Your task to perform on an android device: turn on the 12-hour format for clock Image 0: 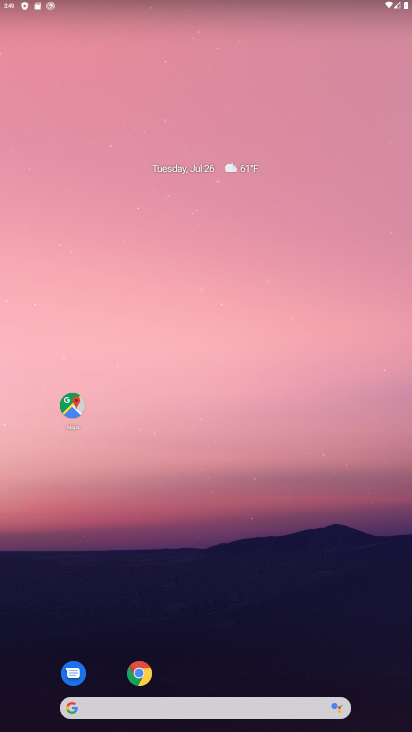
Step 0: press home button
Your task to perform on an android device: turn on the 12-hour format for clock Image 1: 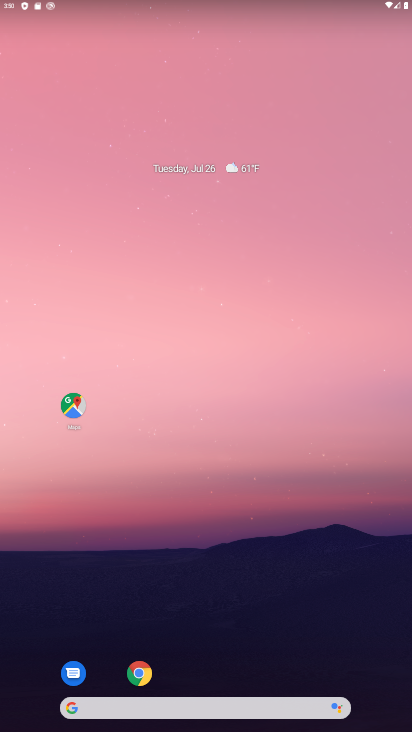
Step 1: drag from (210, 589) to (228, 154)
Your task to perform on an android device: turn on the 12-hour format for clock Image 2: 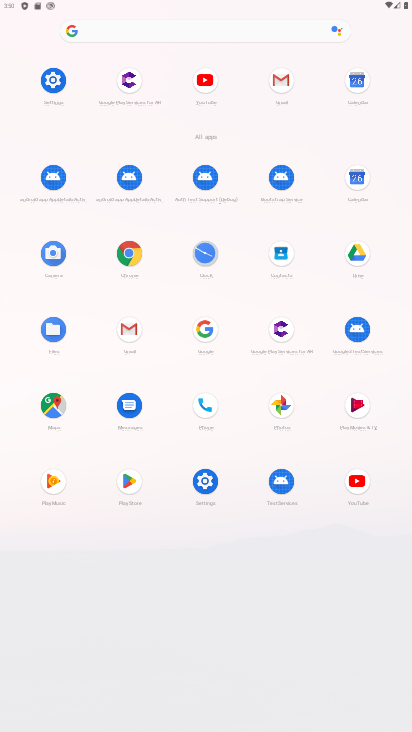
Step 2: click (208, 245)
Your task to perform on an android device: turn on the 12-hour format for clock Image 3: 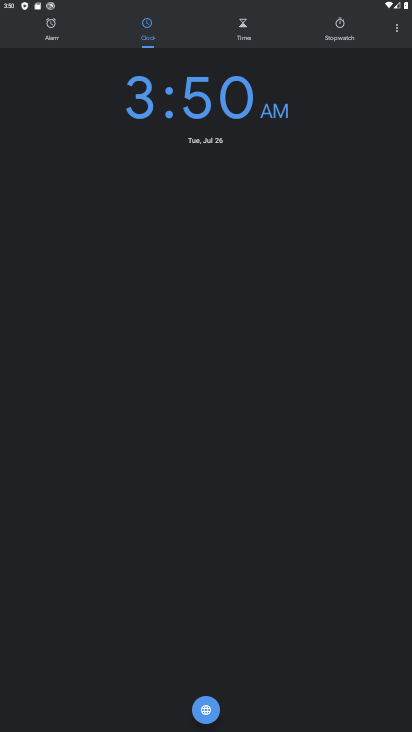
Step 3: click (395, 26)
Your task to perform on an android device: turn on the 12-hour format for clock Image 4: 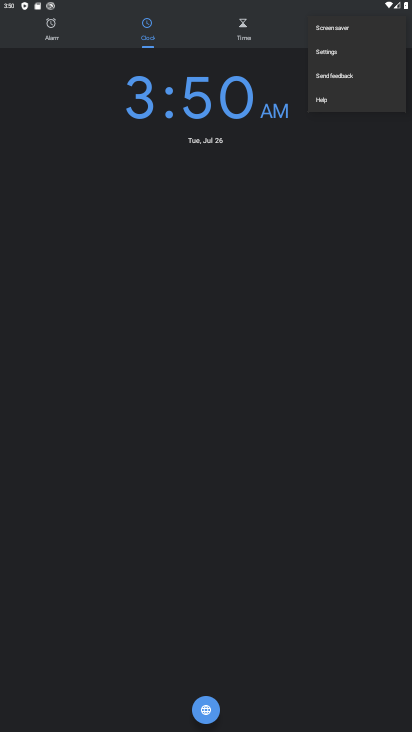
Step 4: click (344, 50)
Your task to perform on an android device: turn on the 12-hour format for clock Image 5: 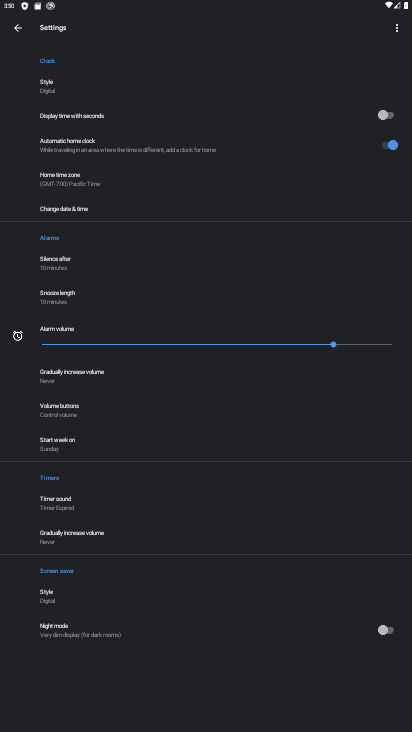
Step 5: click (102, 207)
Your task to perform on an android device: turn on the 12-hour format for clock Image 6: 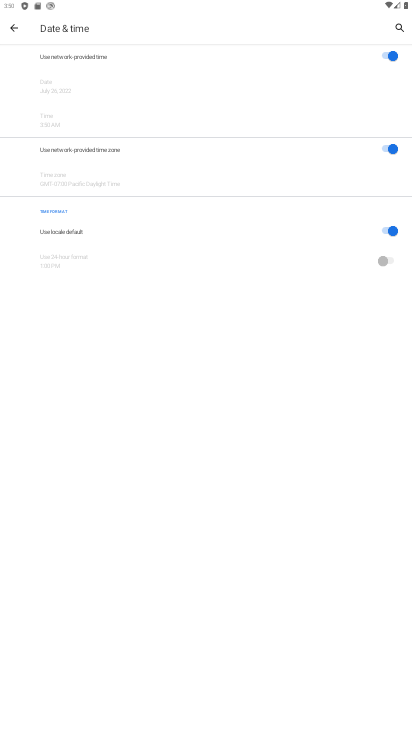
Step 6: click (385, 227)
Your task to perform on an android device: turn on the 12-hour format for clock Image 7: 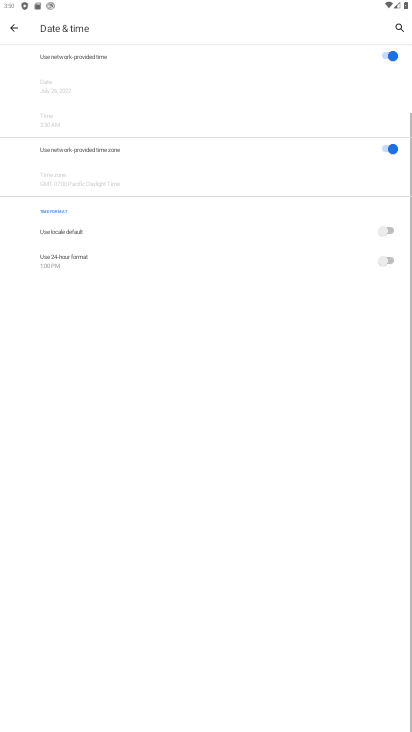
Step 7: click (385, 227)
Your task to perform on an android device: turn on the 12-hour format for clock Image 8: 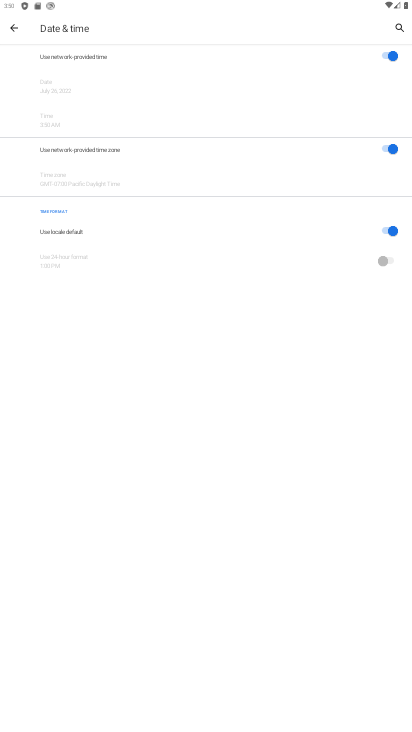
Step 8: task complete